Your task to perform on an android device: uninstall "Mercado Libre" Image 0: 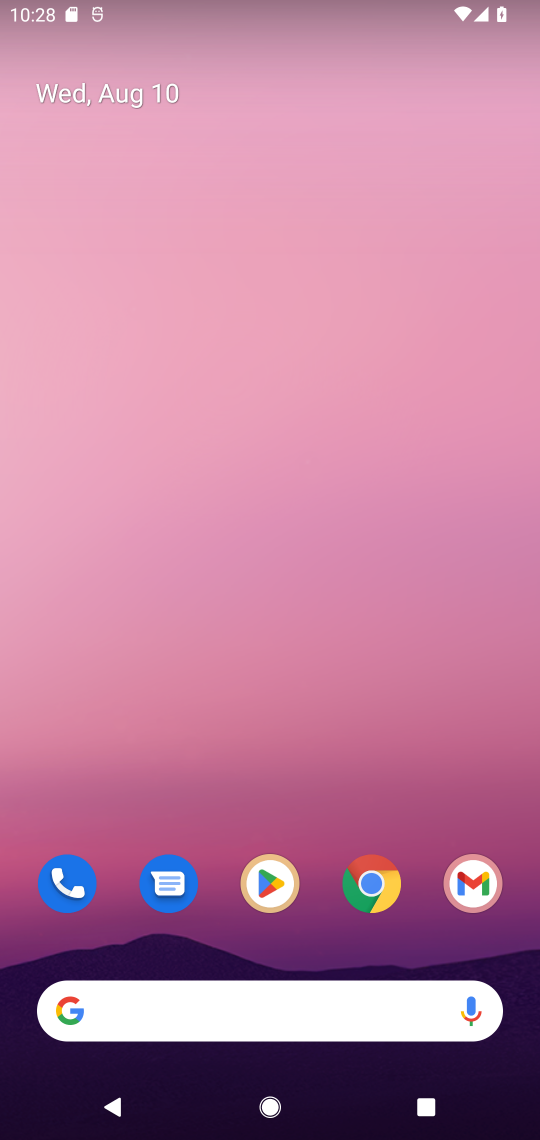
Step 0: drag from (326, 960) to (286, 156)
Your task to perform on an android device: uninstall "Mercado Libre" Image 1: 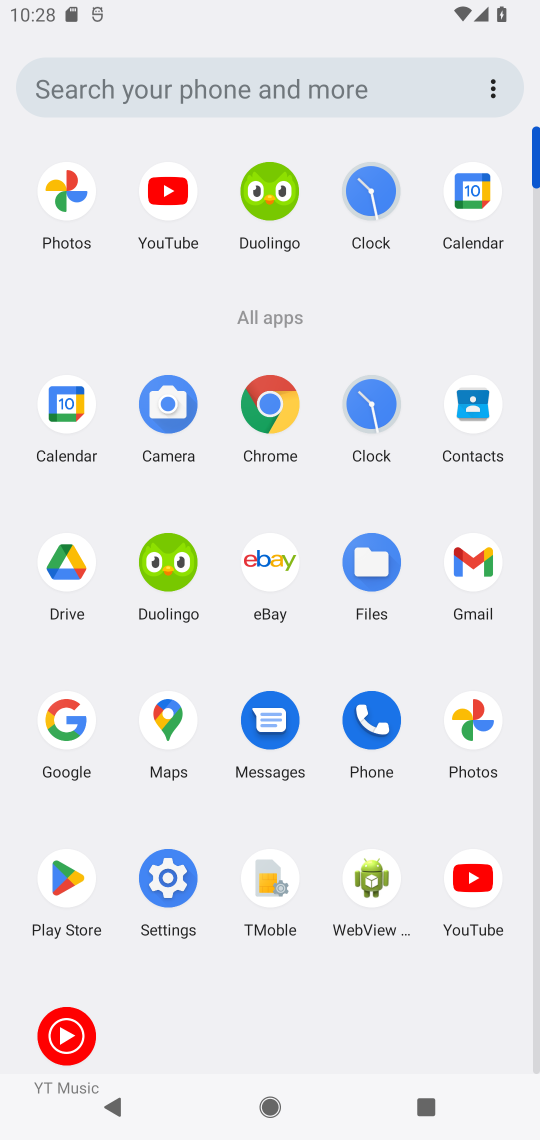
Step 1: click (82, 868)
Your task to perform on an android device: uninstall "Mercado Libre" Image 2: 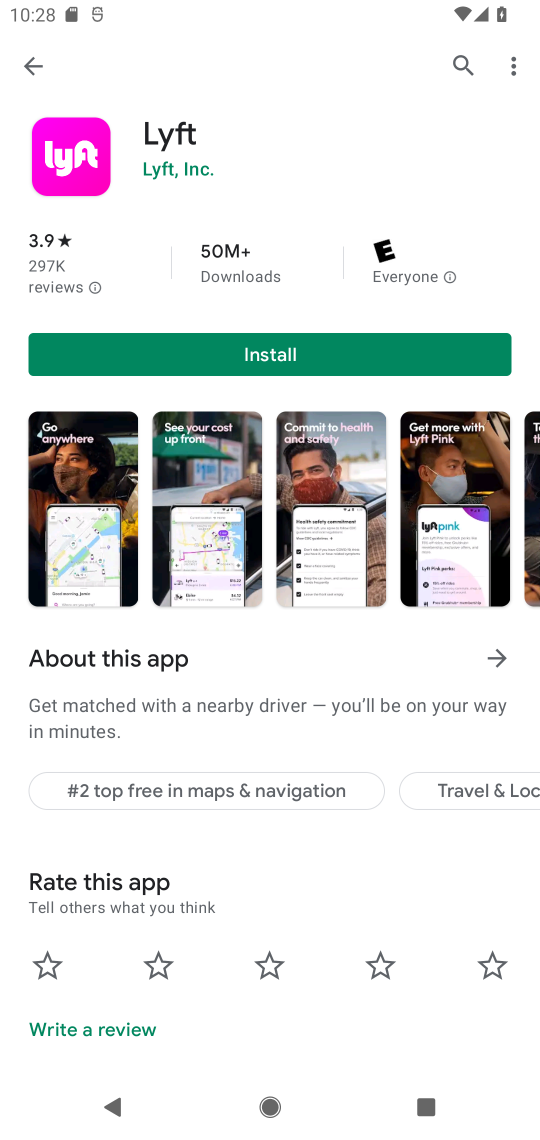
Step 2: click (467, 55)
Your task to perform on an android device: uninstall "Mercado Libre" Image 3: 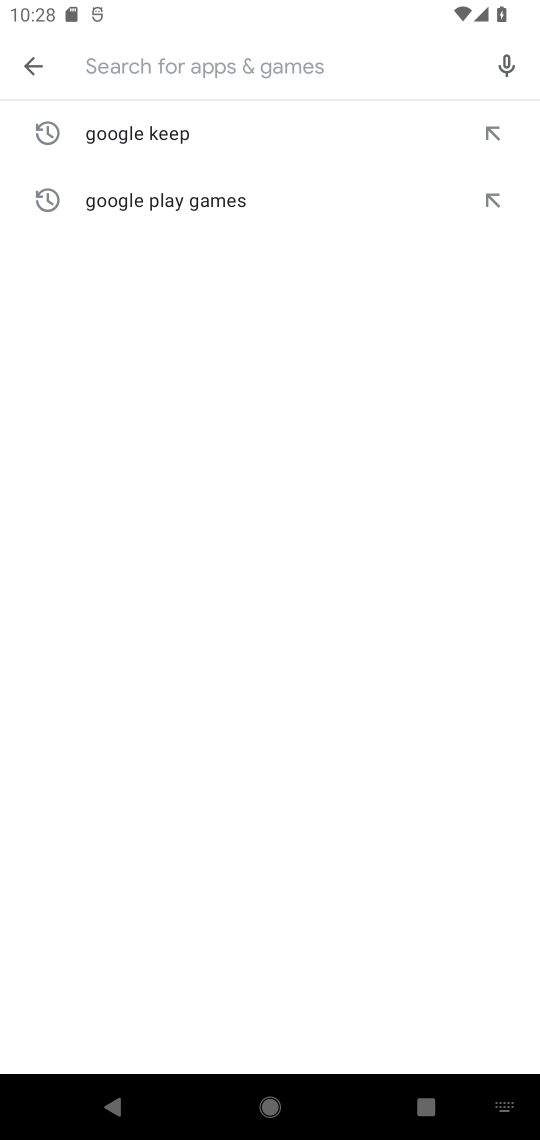
Step 3: type "Mercado Libre"
Your task to perform on an android device: uninstall "Mercado Libre" Image 4: 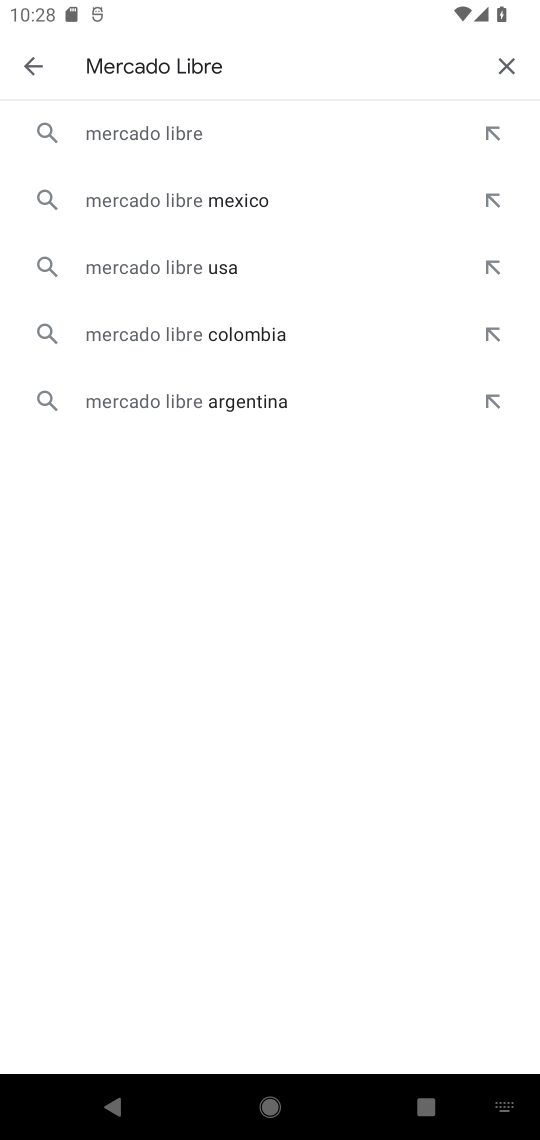
Step 4: click (129, 129)
Your task to perform on an android device: uninstall "Mercado Libre" Image 5: 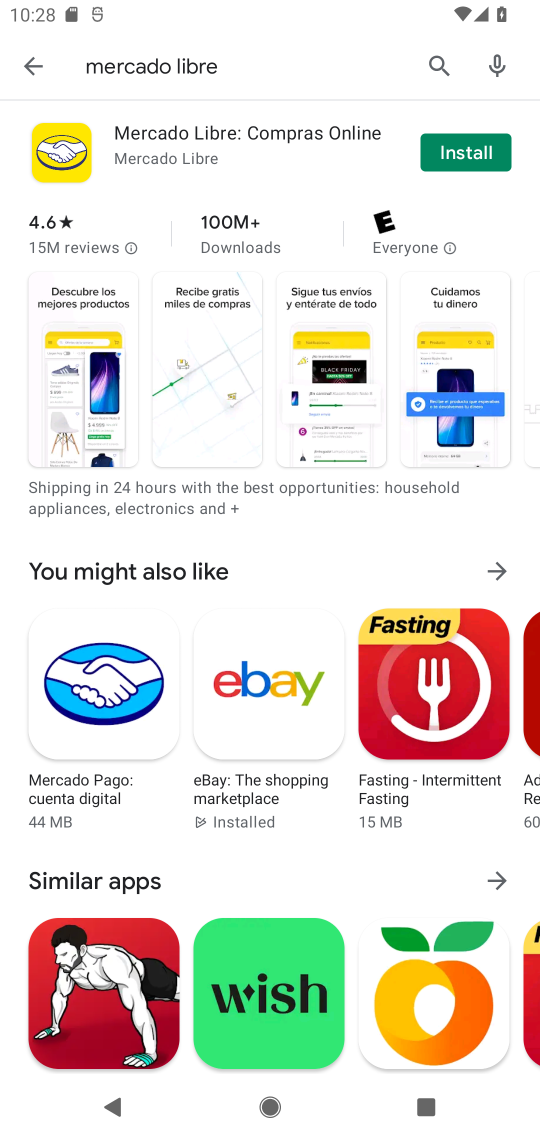
Step 5: click (200, 150)
Your task to perform on an android device: uninstall "Mercado Libre" Image 6: 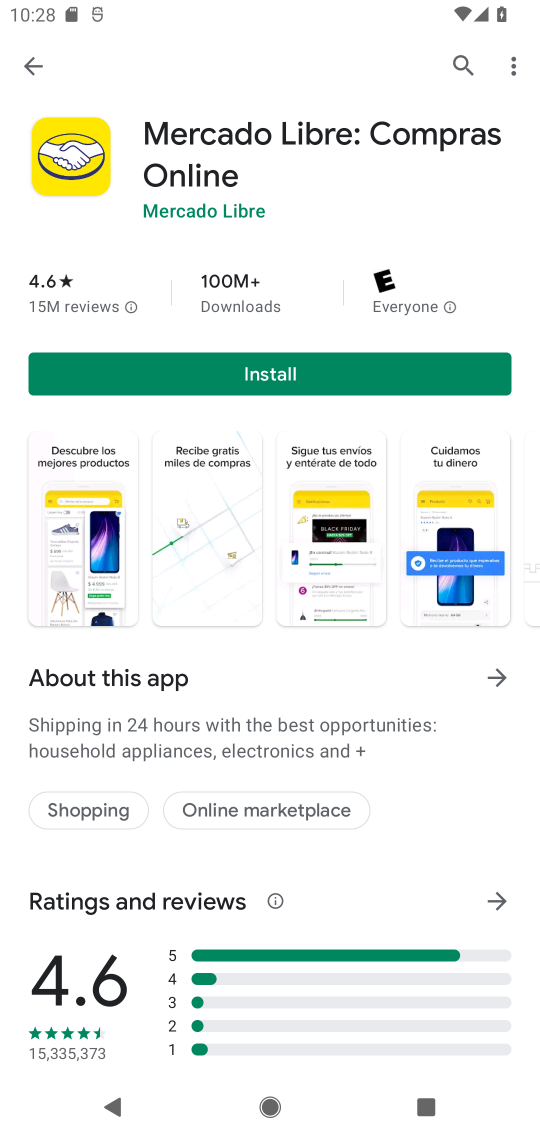
Step 6: task complete